Your task to perform on an android device: find photos in the google photos app Image 0: 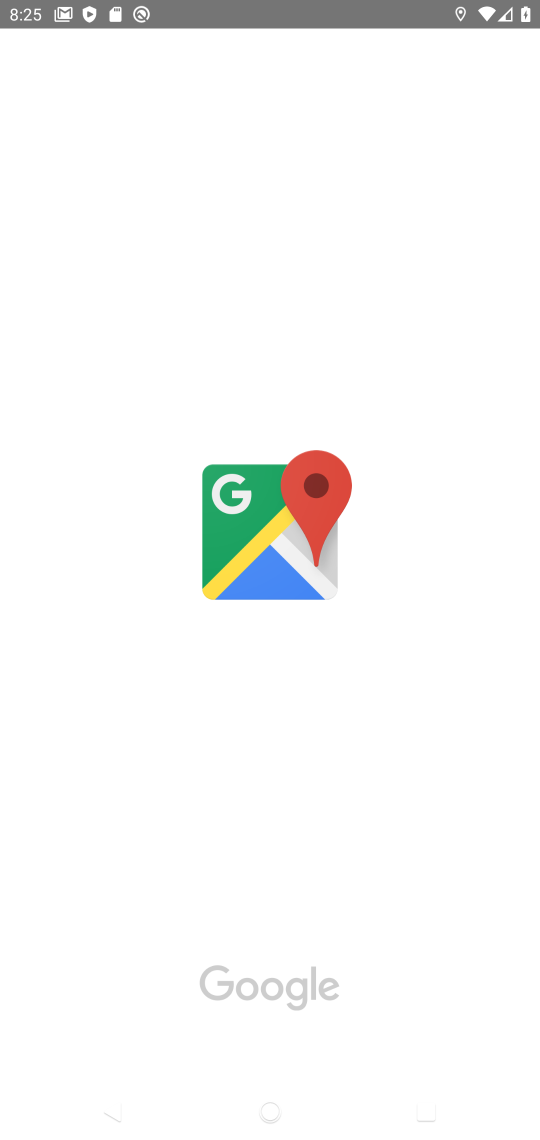
Step 0: press home button
Your task to perform on an android device: find photos in the google photos app Image 1: 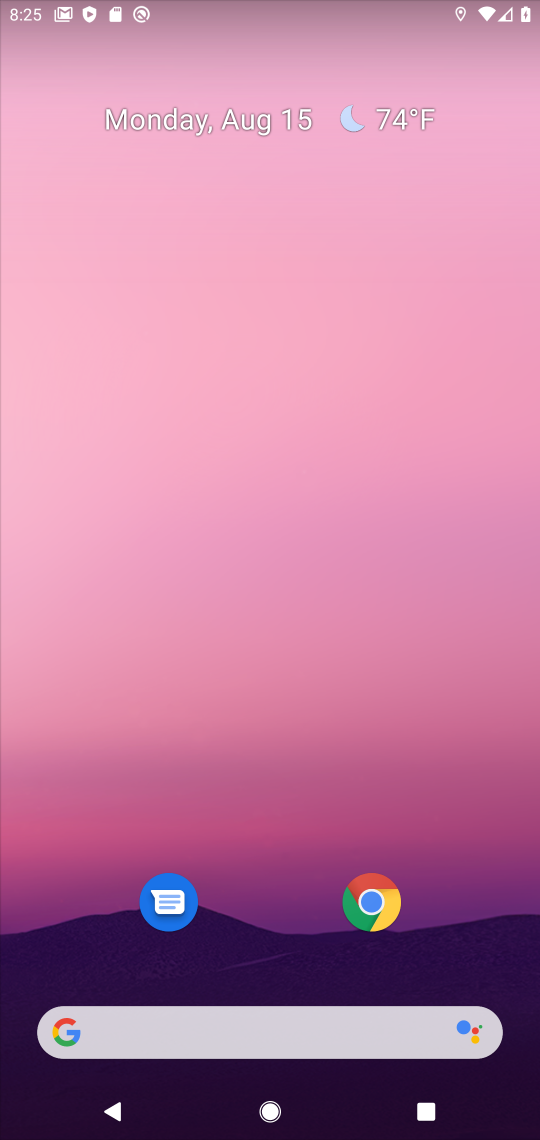
Step 1: drag from (484, 923) to (266, 38)
Your task to perform on an android device: find photos in the google photos app Image 2: 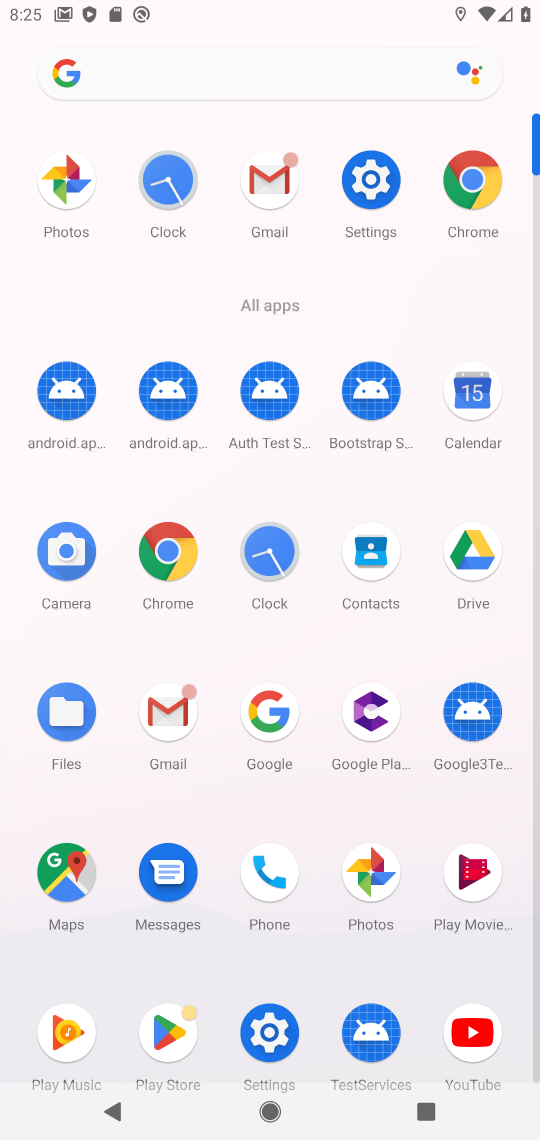
Step 2: click (397, 878)
Your task to perform on an android device: find photos in the google photos app Image 3: 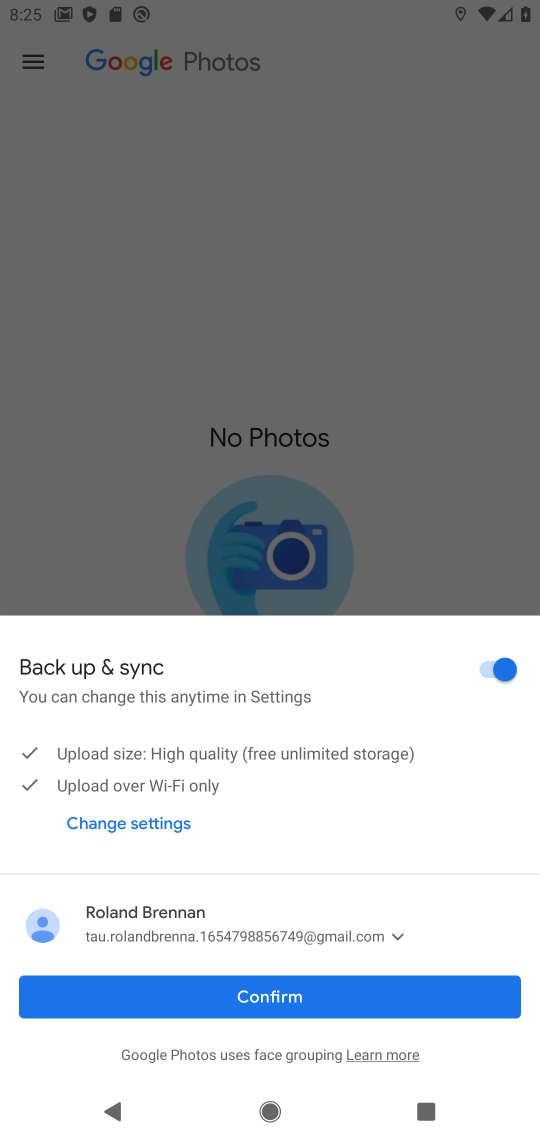
Step 3: task complete